Your task to perform on an android device: show emergency info Image 0: 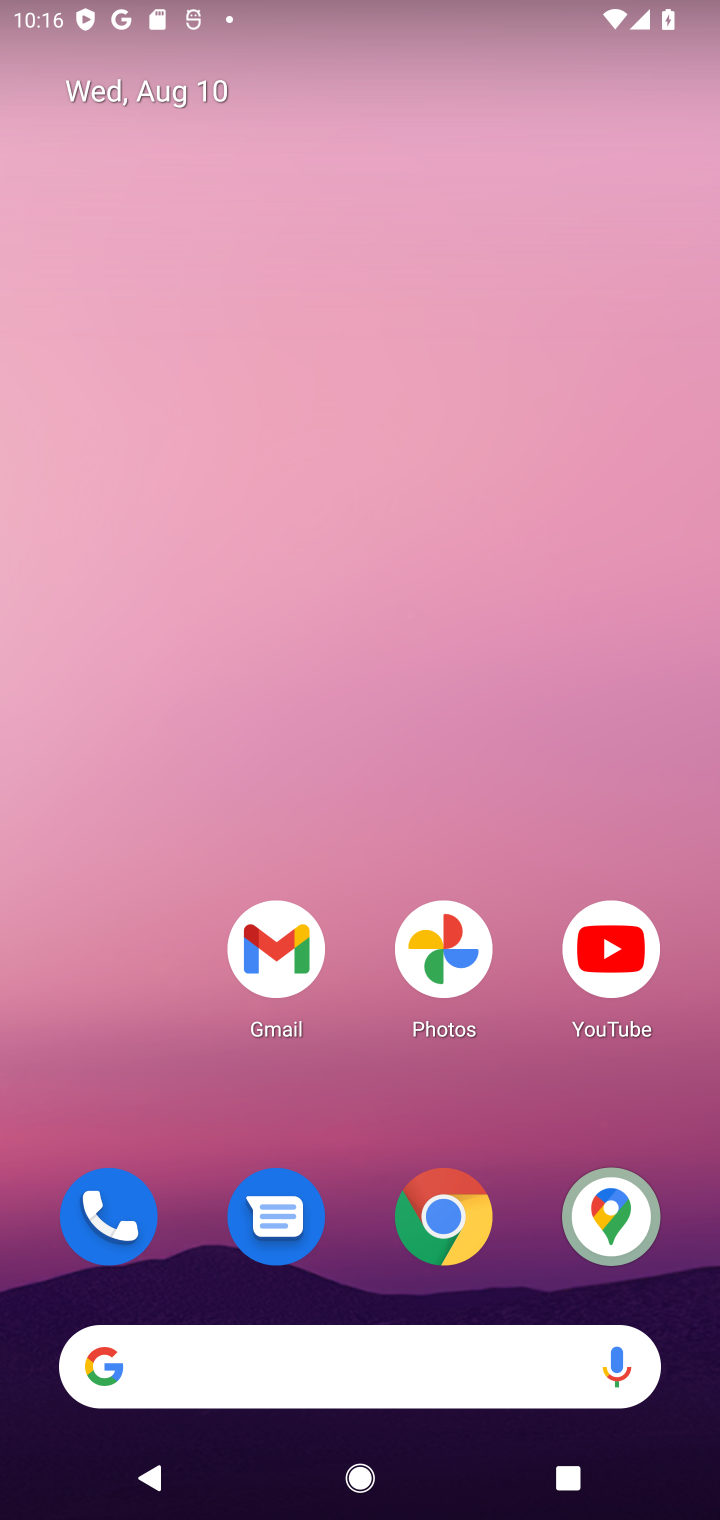
Step 0: drag from (87, 1293) to (578, 328)
Your task to perform on an android device: show emergency info Image 1: 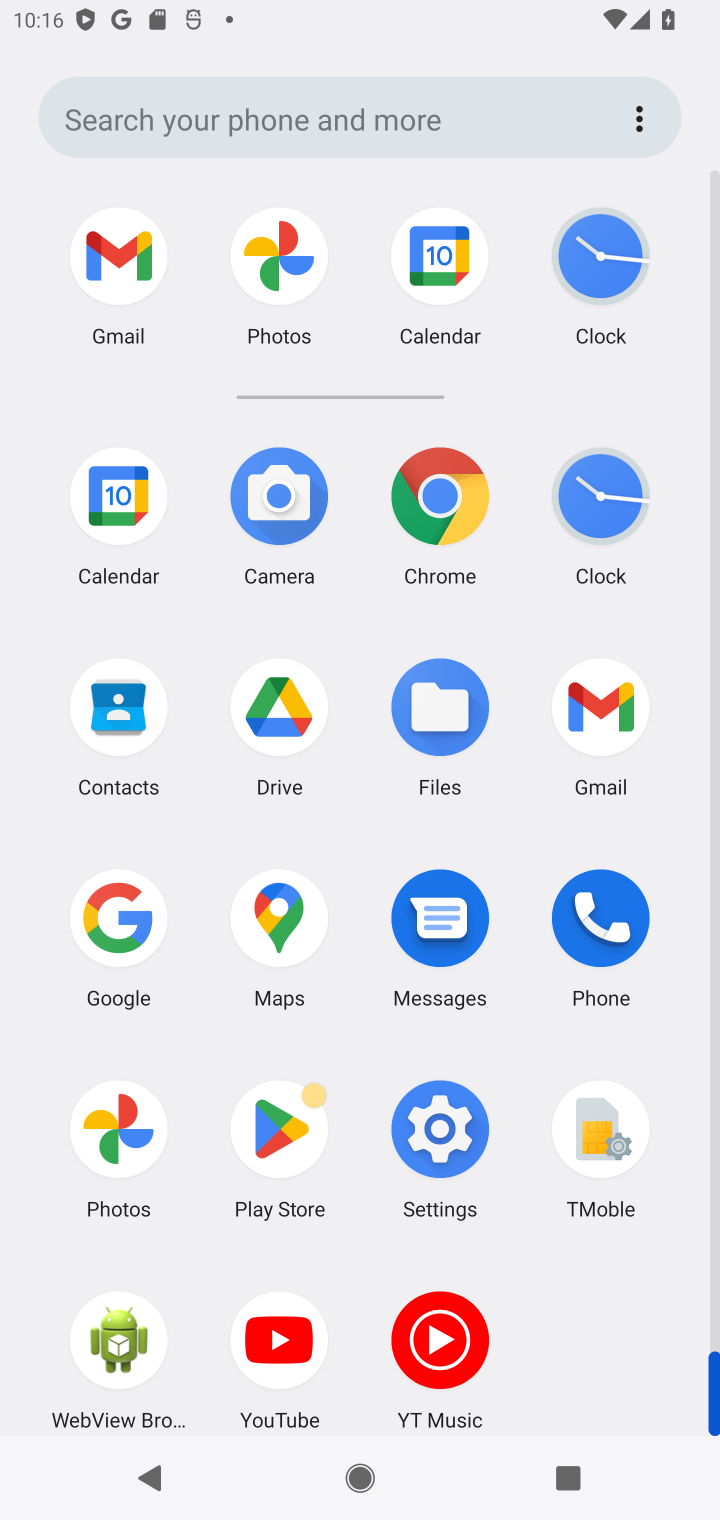
Step 1: click (425, 1118)
Your task to perform on an android device: show emergency info Image 2: 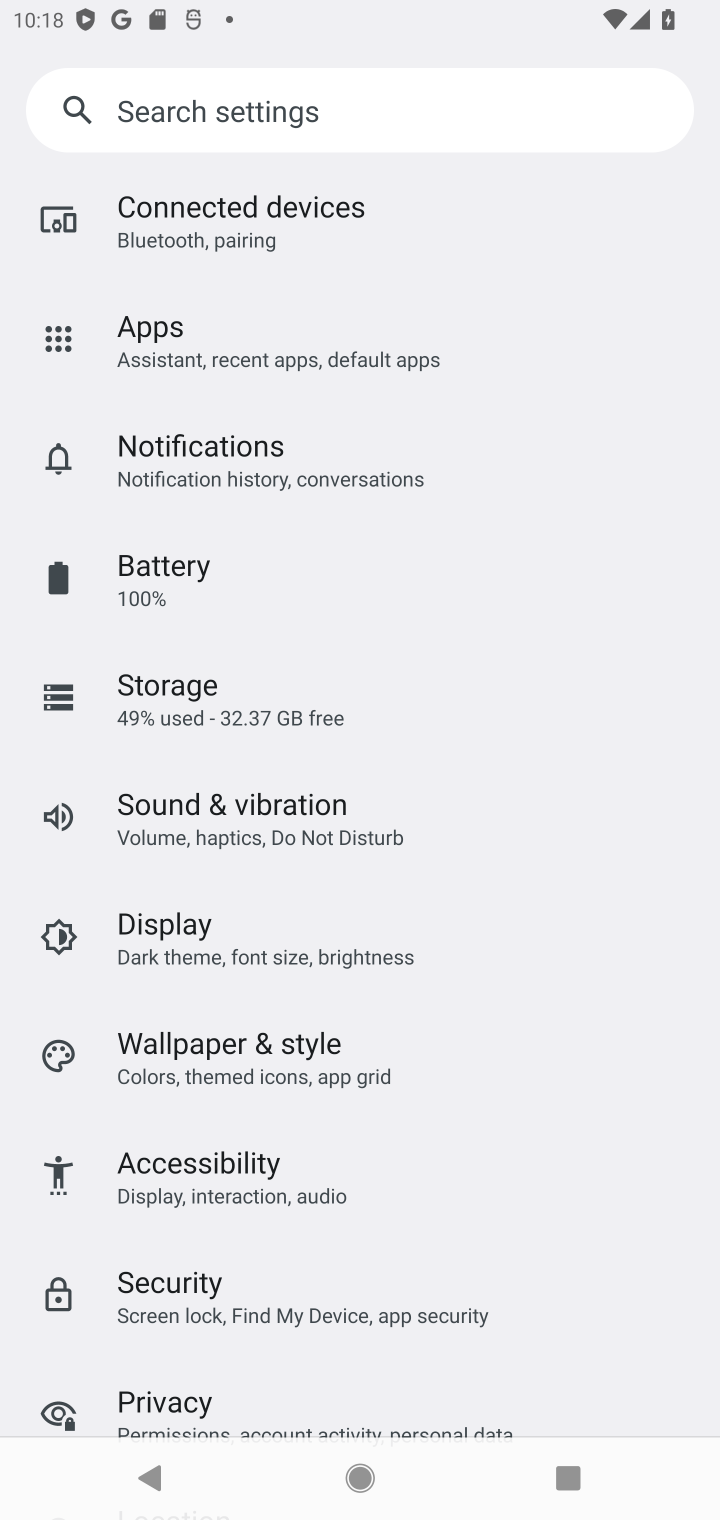
Step 2: drag from (61, 1210) to (599, 92)
Your task to perform on an android device: show emergency info Image 3: 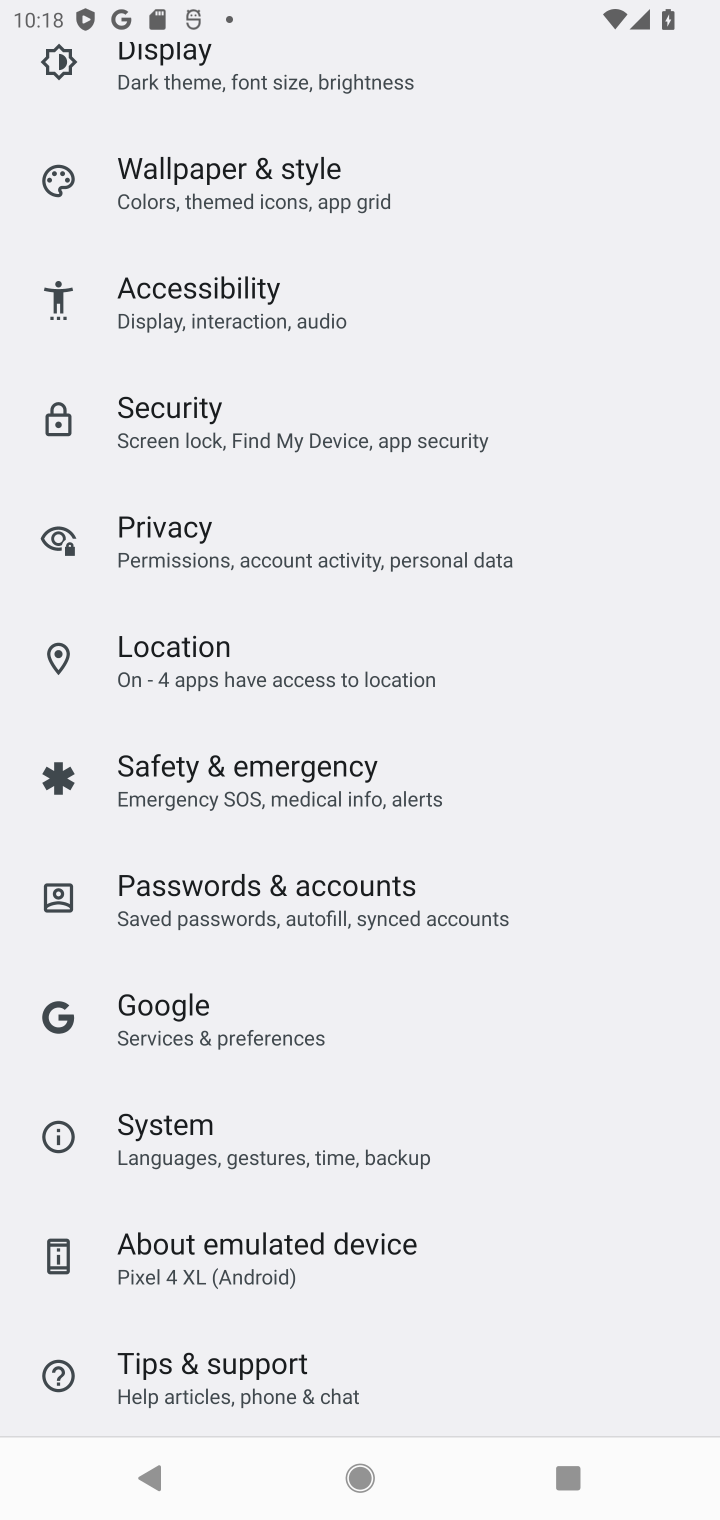
Step 3: click (198, 1263)
Your task to perform on an android device: show emergency info Image 4: 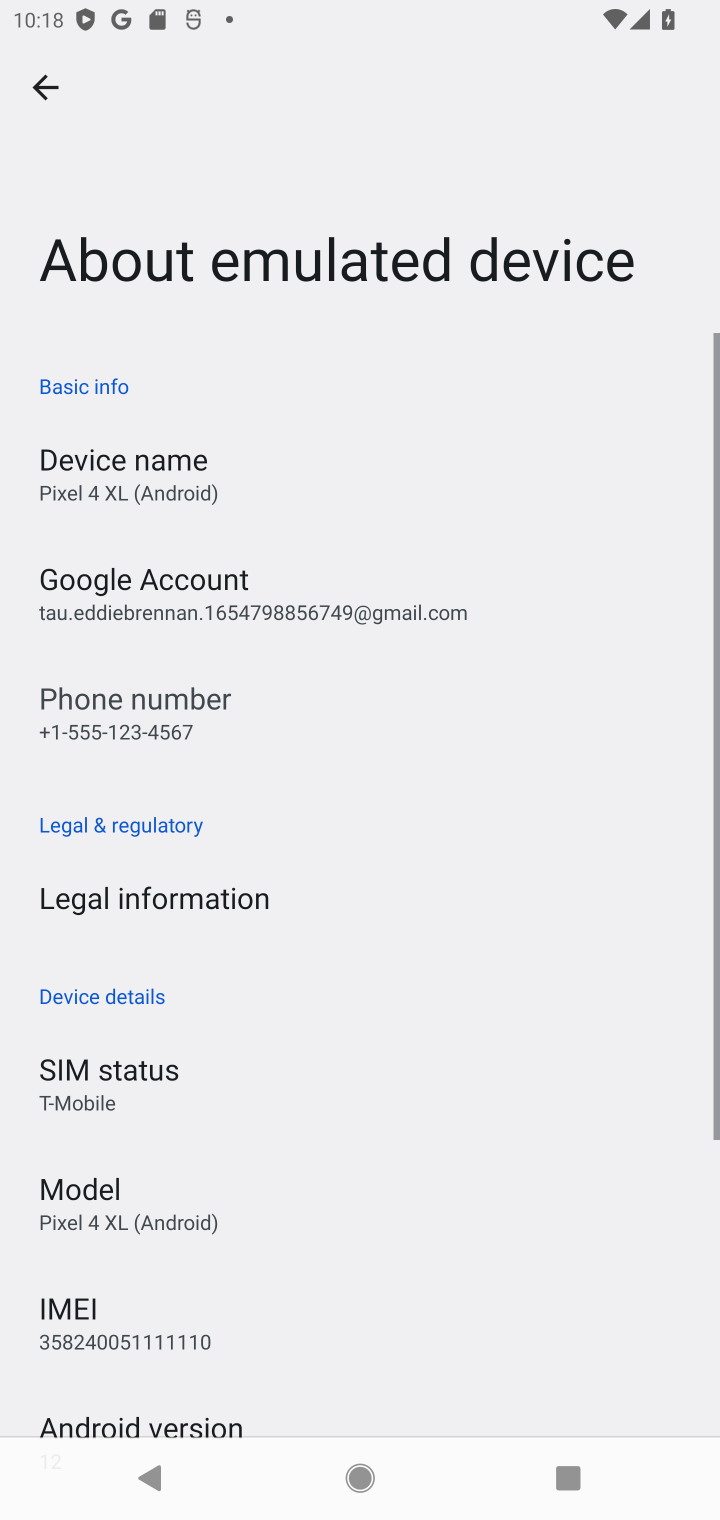
Step 4: task complete